Your task to perform on an android device: Open Google Image 0: 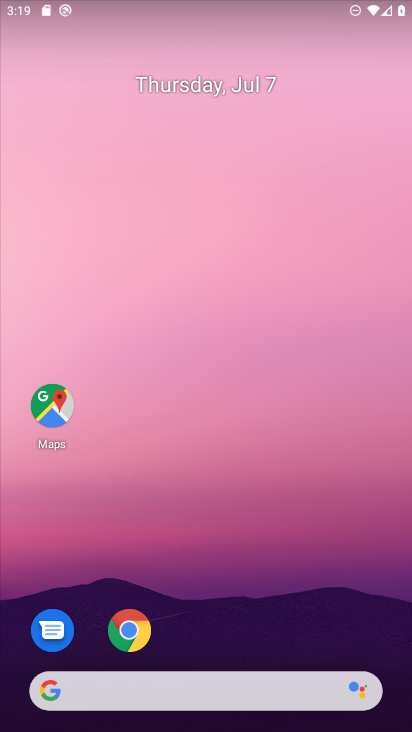
Step 0: drag from (365, 618) to (348, 289)
Your task to perform on an android device: Open Google Image 1: 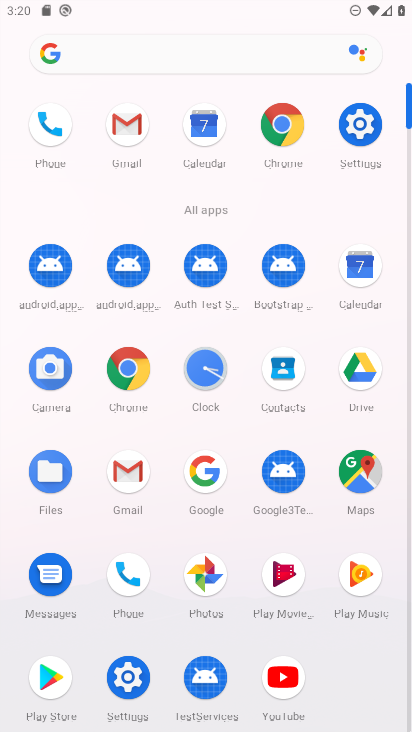
Step 1: click (204, 474)
Your task to perform on an android device: Open Google Image 2: 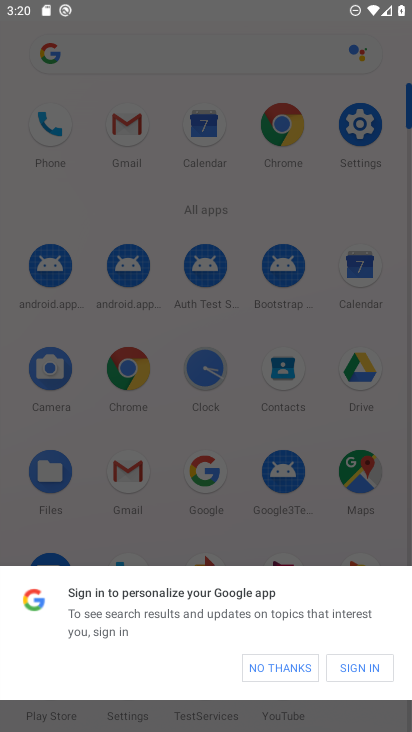
Step 2: click (275, 674)
Your task to perform on an android device: Open Google Image 3: 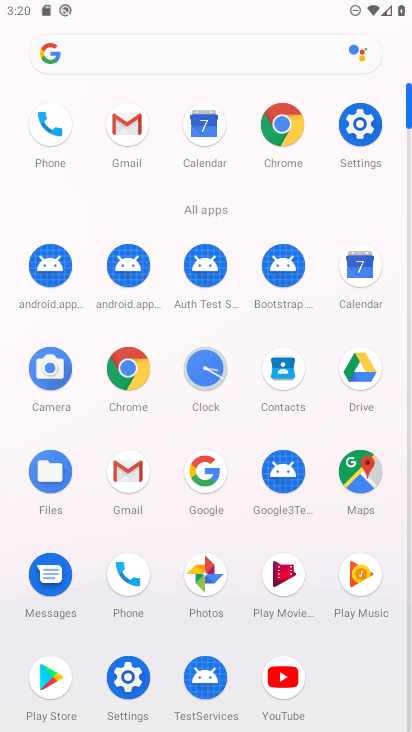
Step 3: click (203, 492)
Your task to perform on an android device: Open Google Image 4: 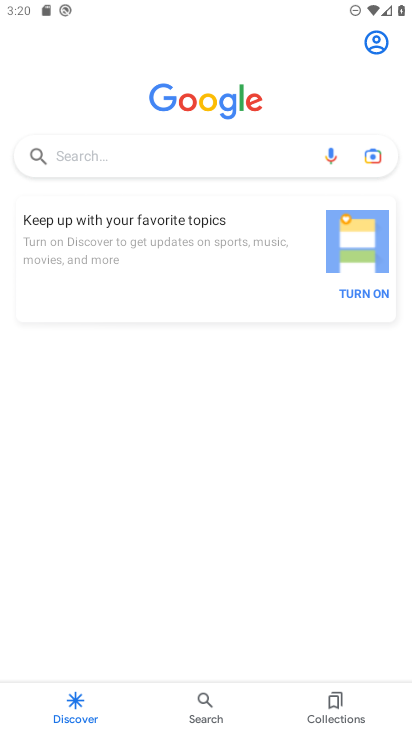
Step 4: task complete